Your task to perform on an android device: turn off airplane mode Image 0: 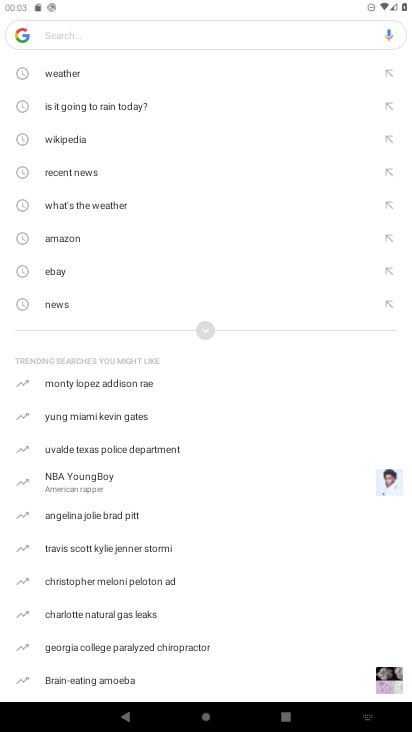
Step 0: drag from (279, 12) to (357, 544)
Your task to perform on an android device: turn off airplane mode Image 1: 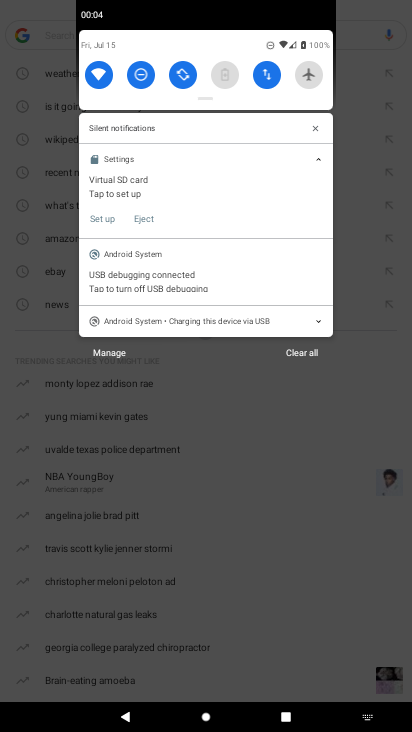
Step 1: task complete